Your task to perform on an android device: open device folders in google photos Image 0: 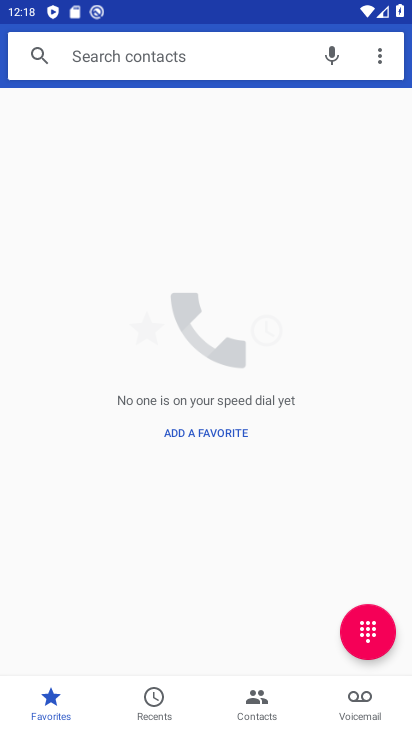
Step 0: press home button
Your task to perform on an android device: open device folders in google photos Image 1: 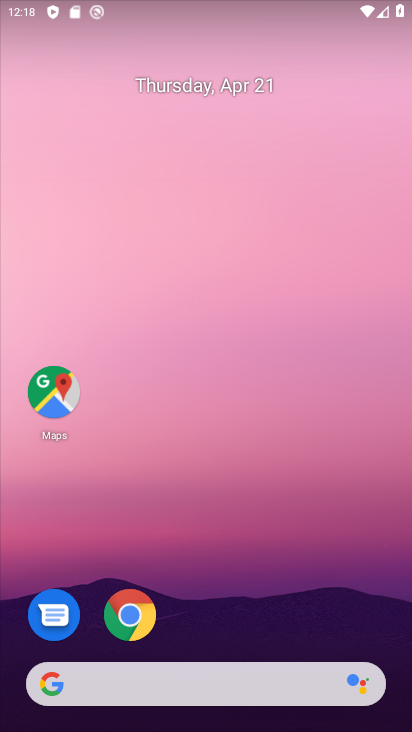
Step 1: drag from (207, 419) to (209, 13)
Your task to perform on an android device: open device folders in google photos Image 2: 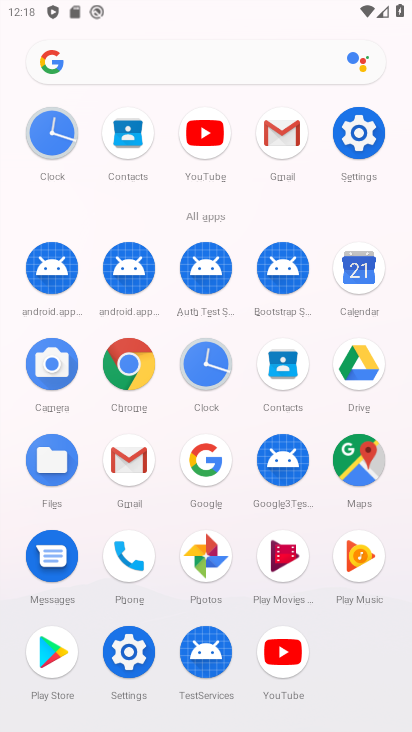
Step 2: click (204, 576)
Your task to perform on an android device: open device folders in google photos Image 3: 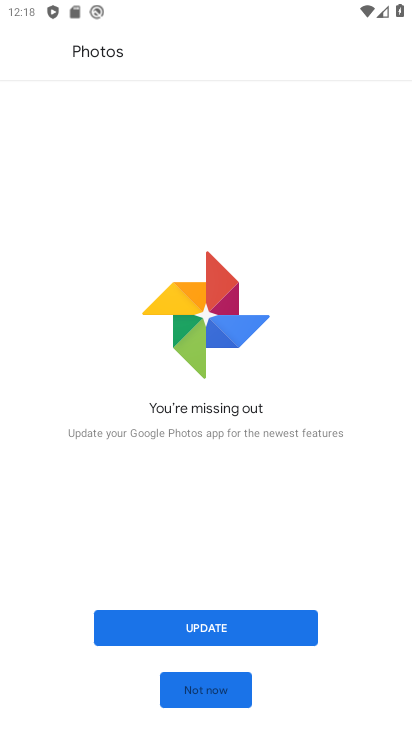
Step 3: click (202, 628)
Your task to perform on an android device: open device folders in google photos Image 4: 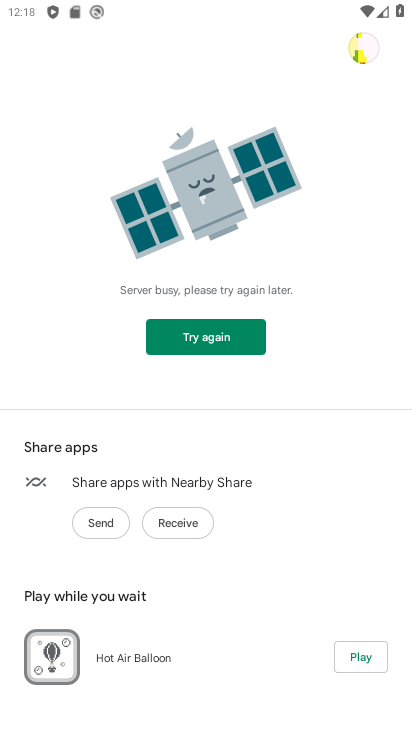
Step 4: task complete